Your task to perform on an android device: open app "Adobe Express: Graphic Design" (install if not already installed) Image 0: 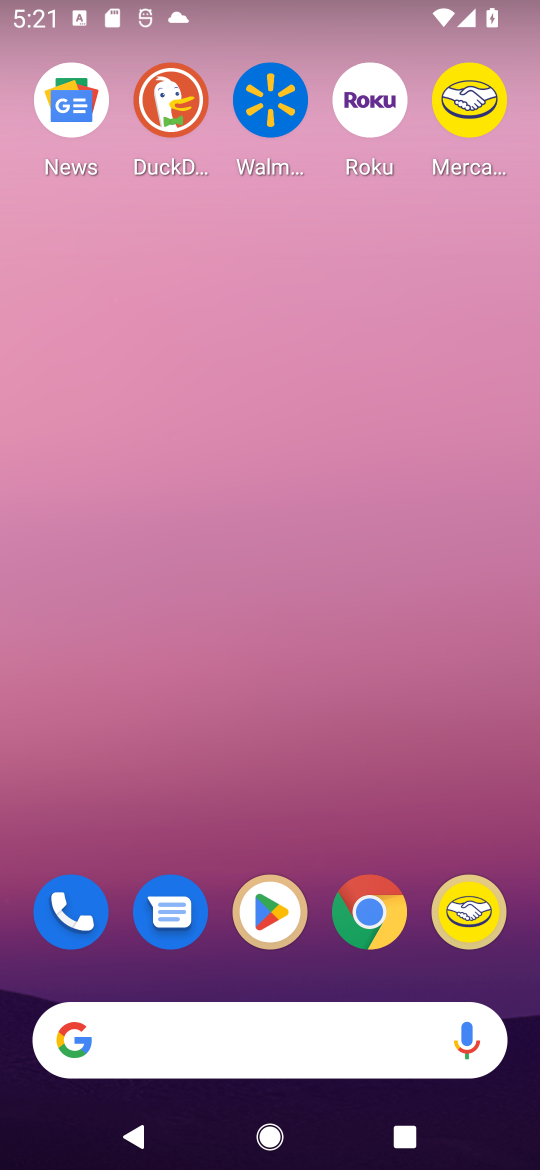
Step 0: drag from (261, 1004) to (328, 147)
Your task to perform on an android device: open app "Adobe Express: Graphic Design" (install if not already installed) Image 1: 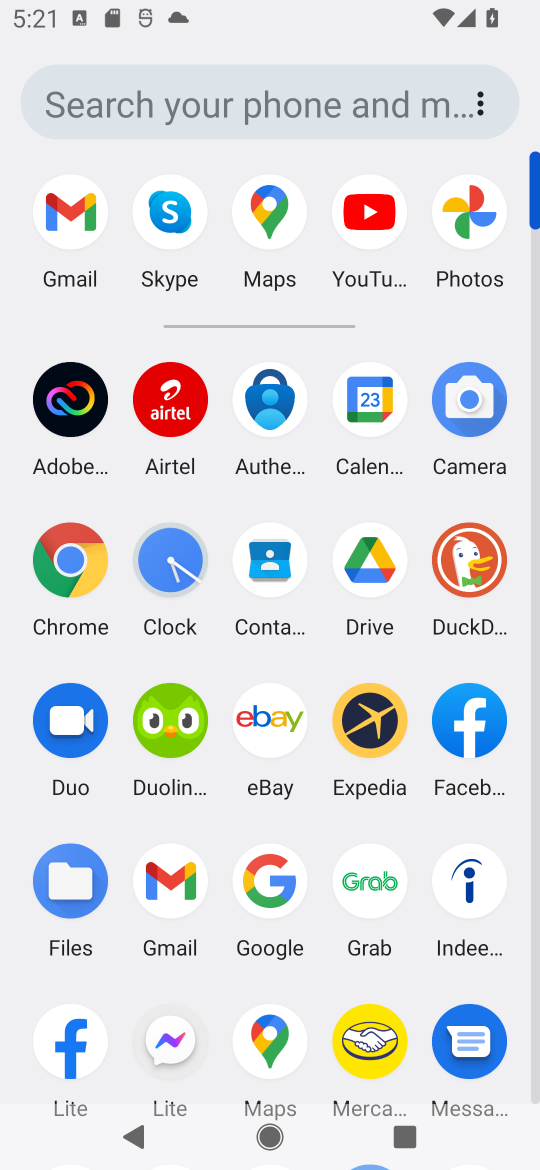
Step 1: drag from (228, 955) to (327, 259)
Your task to perform on an android device: open app "Adobe Express: Graphic Design" (install if not already installed) Image 2: 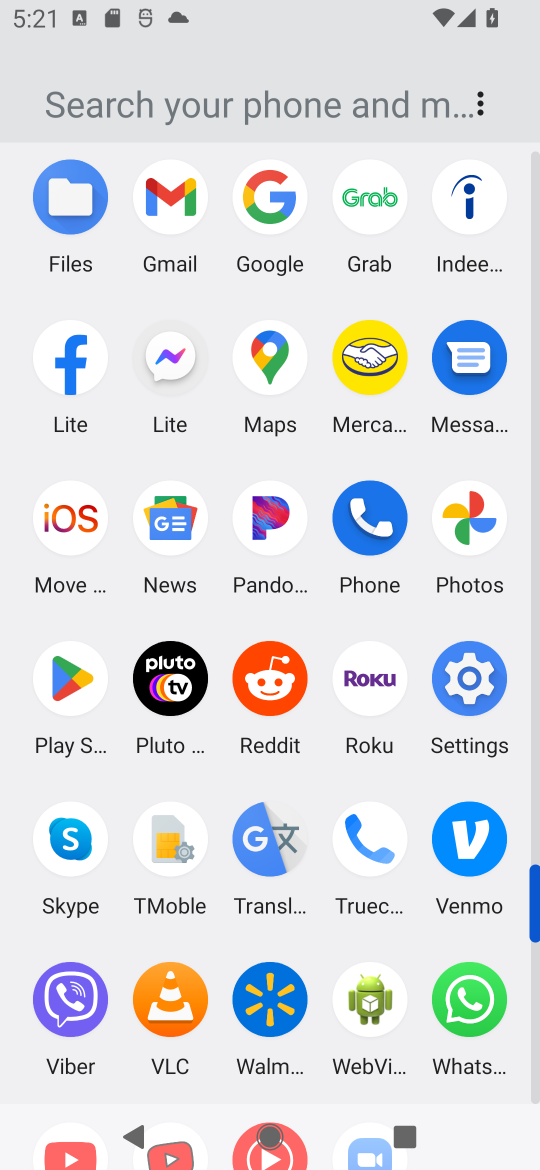
Step 2: click (77, 679)
Your task to perform on an android device: open app "Adobe Express: Graphic Design" (install if not already installed) Image 3: 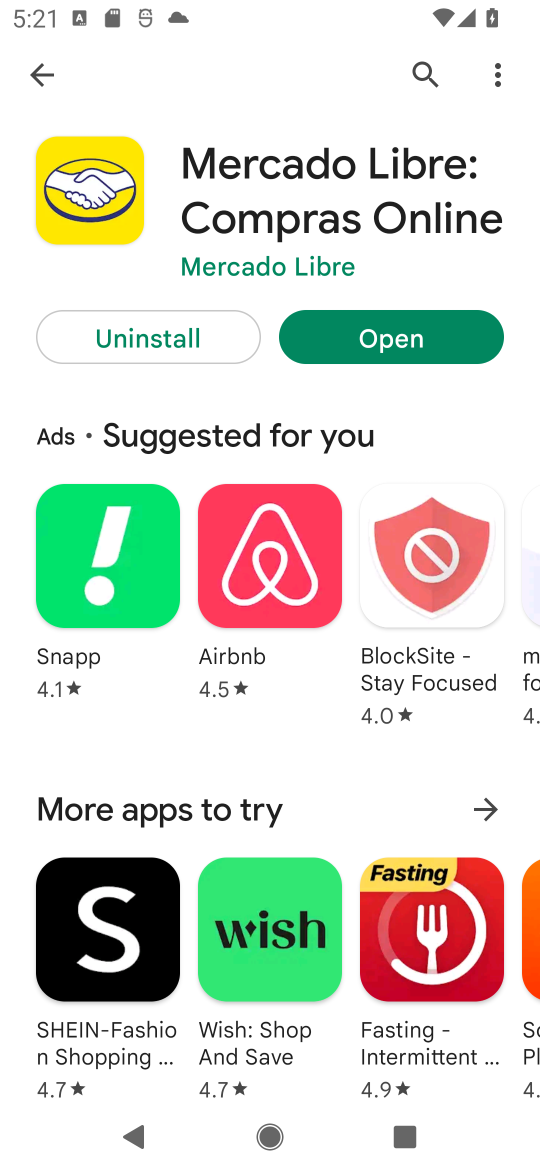
Step 3: press back button
Your task to perform on an android device: open app "Adobe Express: Graphic Design" (install if not already installed) Image 4: 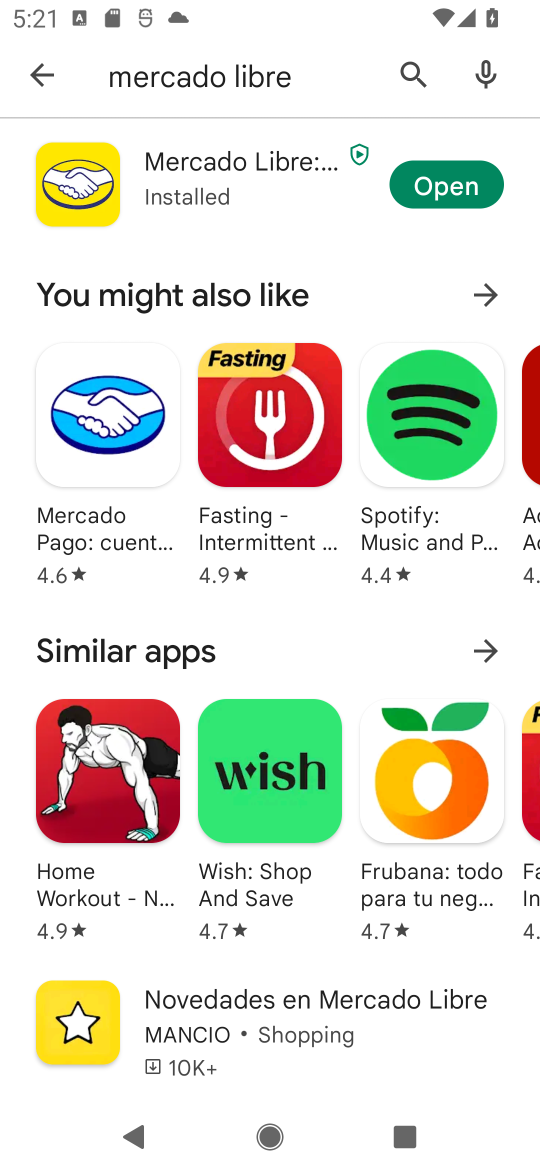
Step 4: press back button
Your task to perform on an android device: open app "Adobe Express: Graphic Design" (install if not already installed) Image 5: 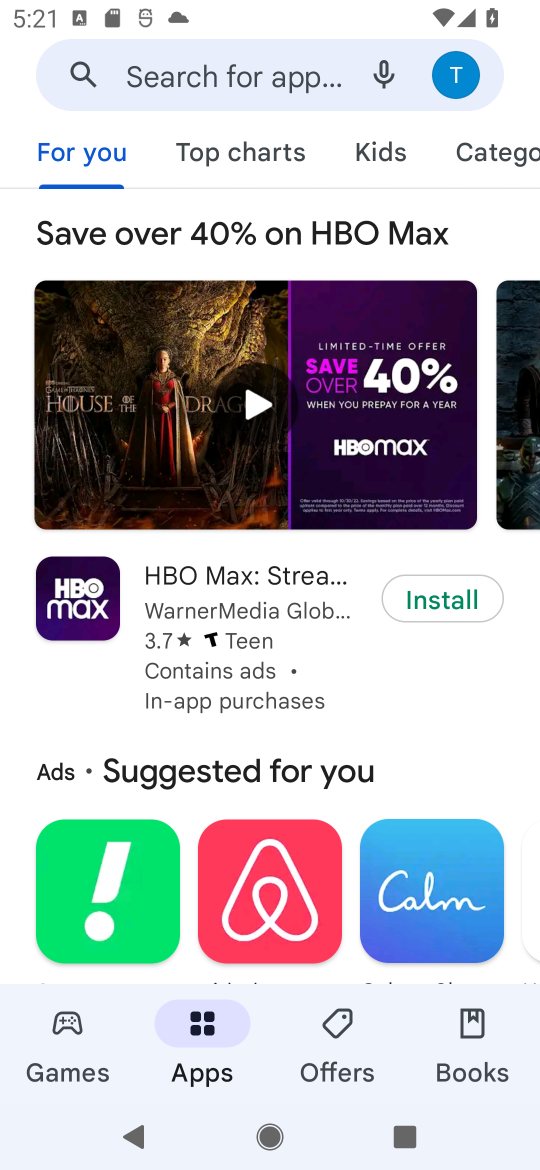
Step 5: click (242, 82)
Your task to perform on an android device: open app "Adobe Express: Graphic Design" (install if not already installed) Image 6: 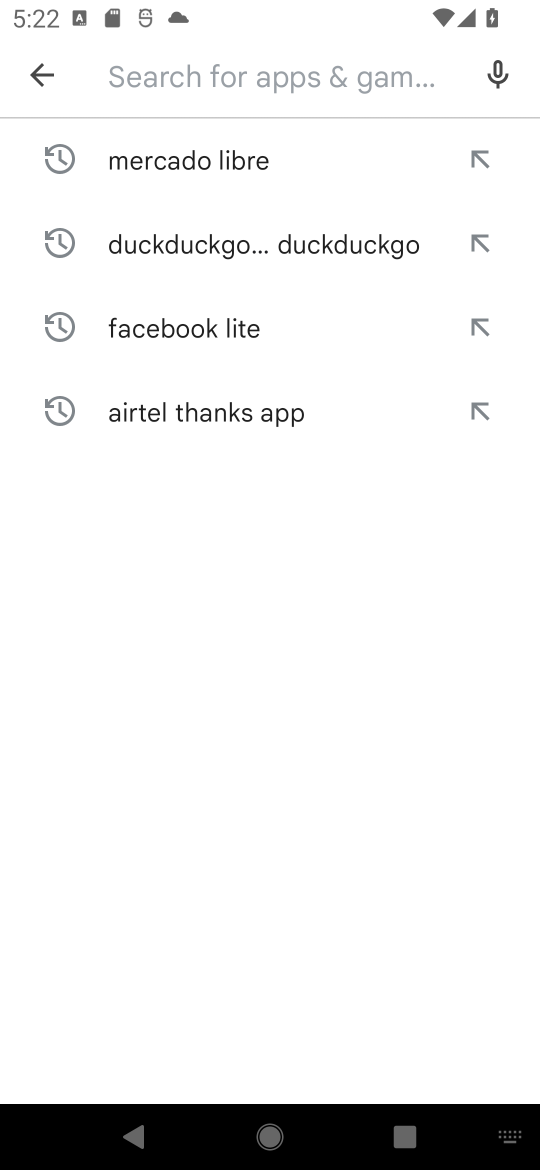
Step 6: click (266, 82)
Your task to perform on an android device: open app "Adobe Express: Graphic Design" (install if not already installed) Image 7: 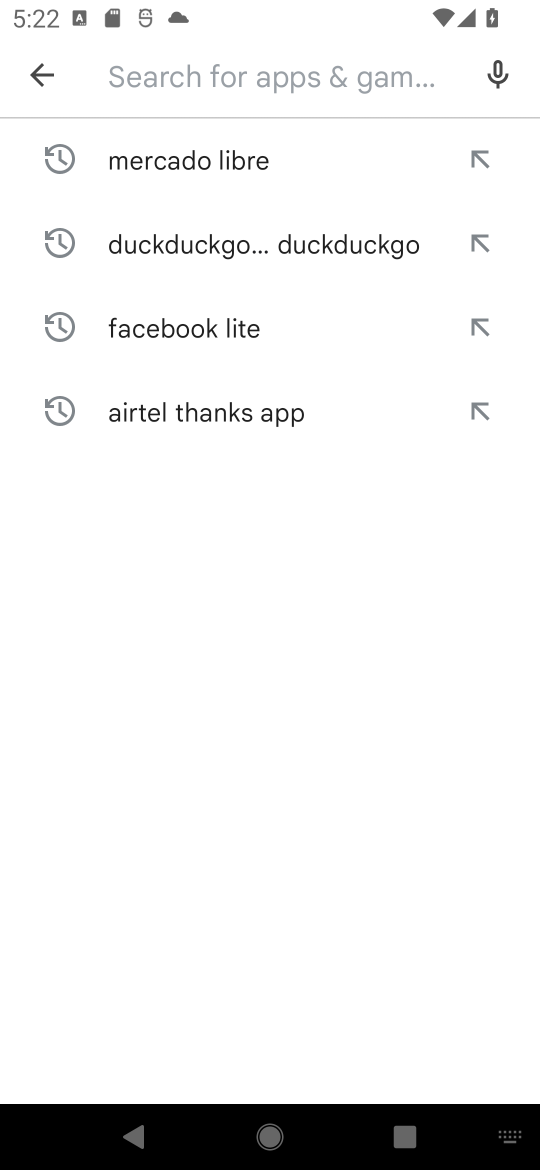
Step 7: type "Adobe Express: Graphic Design"
Your task to perform on an android device: open app "Adobe Express: Graphic Design" (install if not already installed) Image 8: 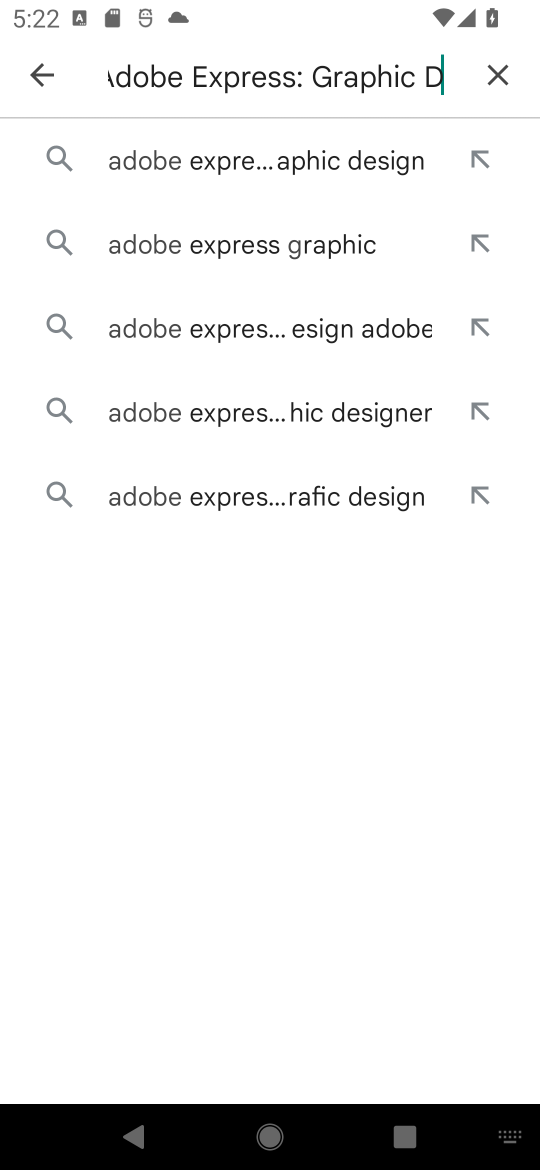
Step 8: type ""
Your task to perform on an android device: open app "Adobe Express: Graphic Design" (install if not already installed) Image 9: 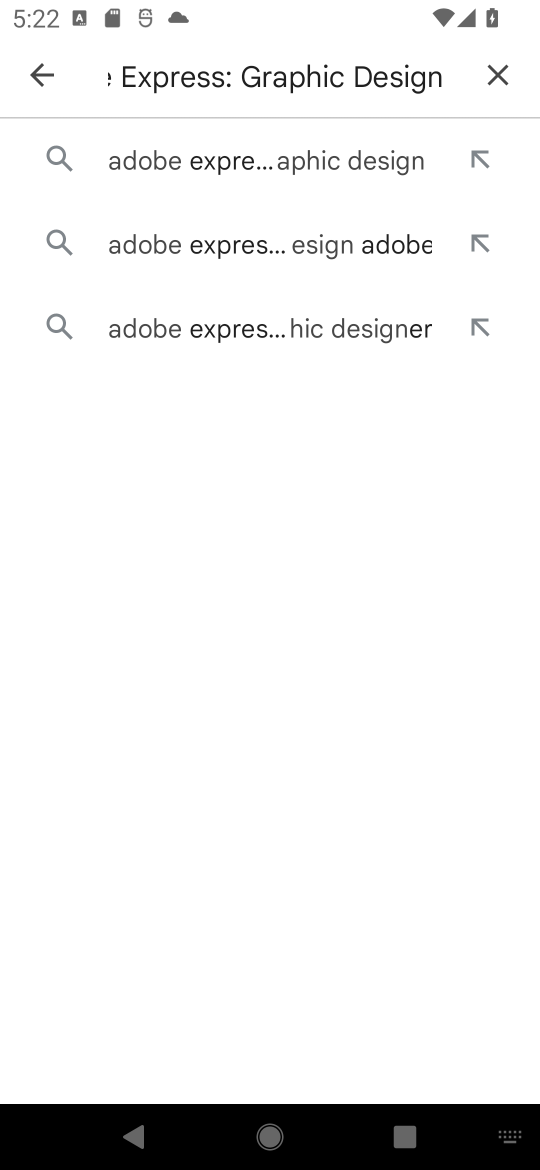
Step 9: click (229, 154)
Your task to perform on an android device: open app "Adobe Express: Graphic Design" (install if not already installed) Image 10: 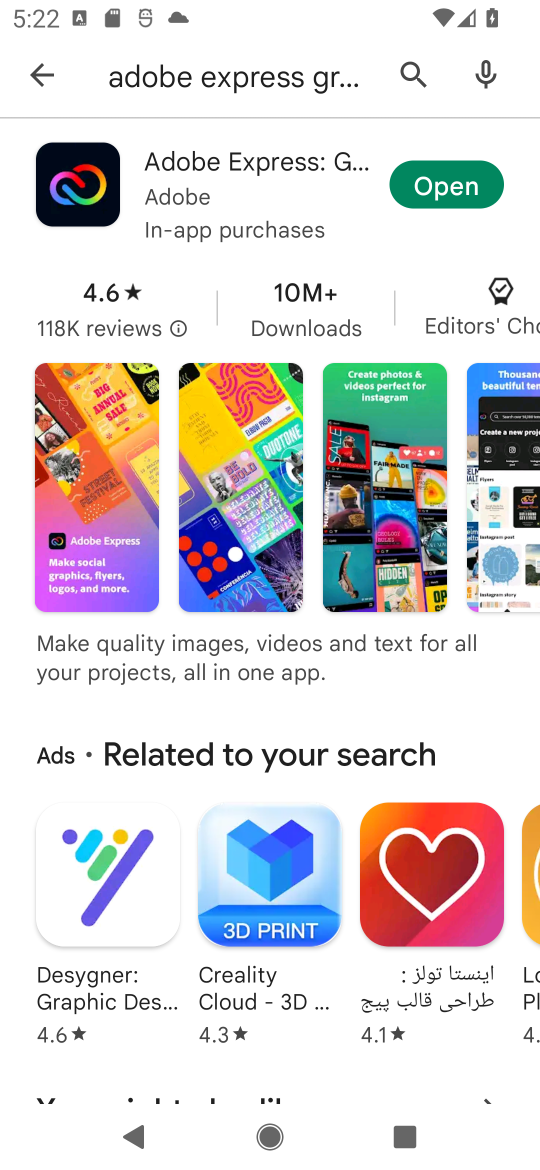
Step 10: click (407, 199)
Your task to perform on an android device: open app "Adobe Express: Graphic Design" (install if not already installed) Image 11: 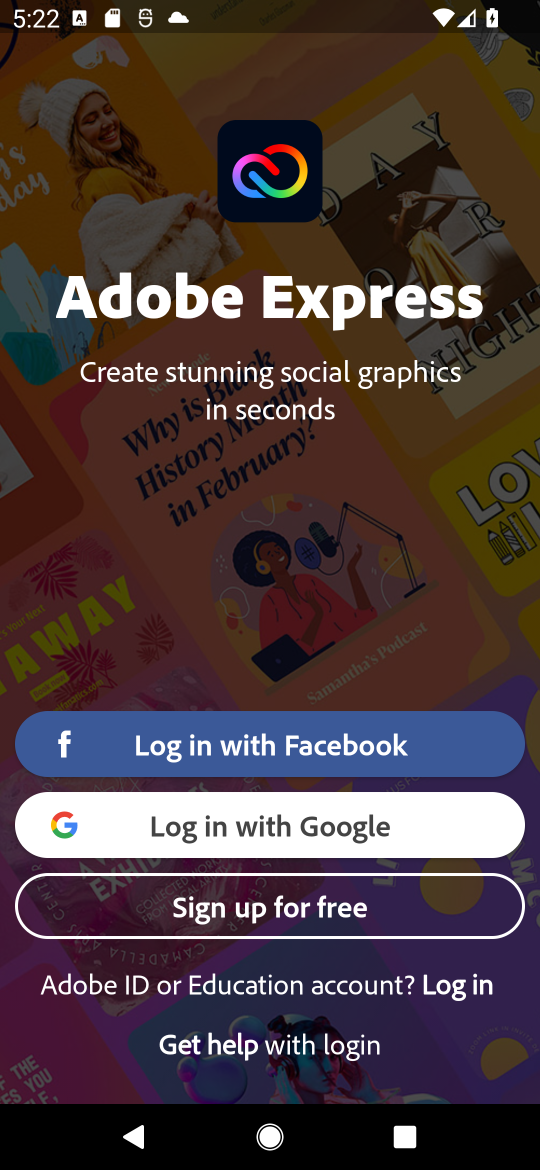
Step 11: task complete